Your task to perform on an android device: star an email in the gmail app Image 0: 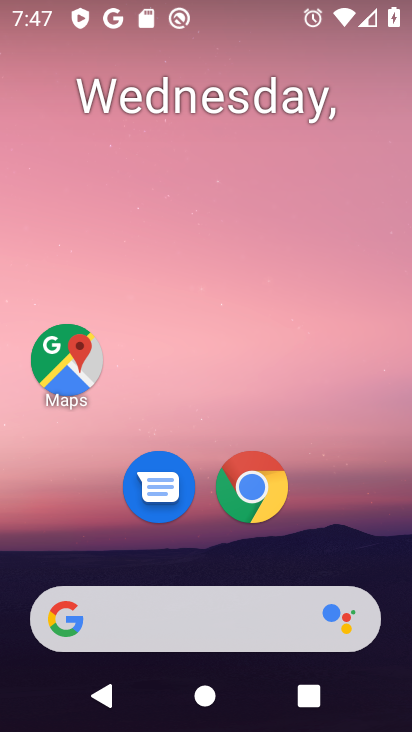
Step 0: drag from (204, 608) to (215, 166)
Your task to perform on an android device: star an email in the gmail app Image 1: 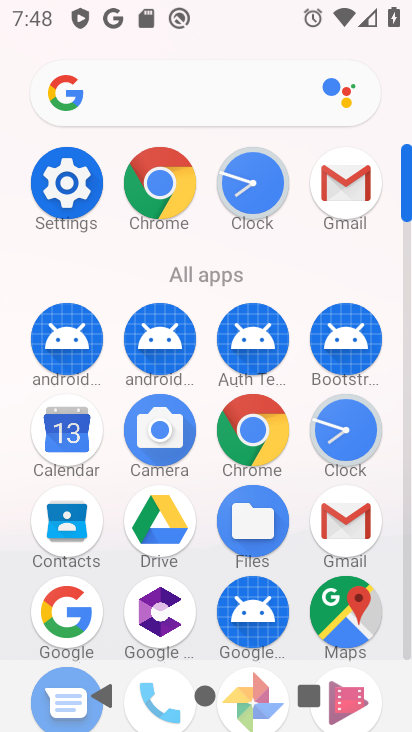
Step 1: drag from (239, 498) to (319, 238)
Your task to perform on an android device: star an email in the gmail app Image 2: 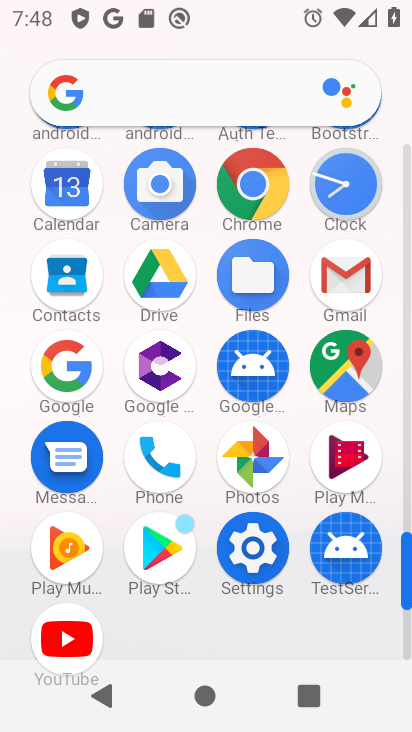
Step 2: click (353, 282)
Your task to perform on an android device: star an email in the gmail app Image 3: 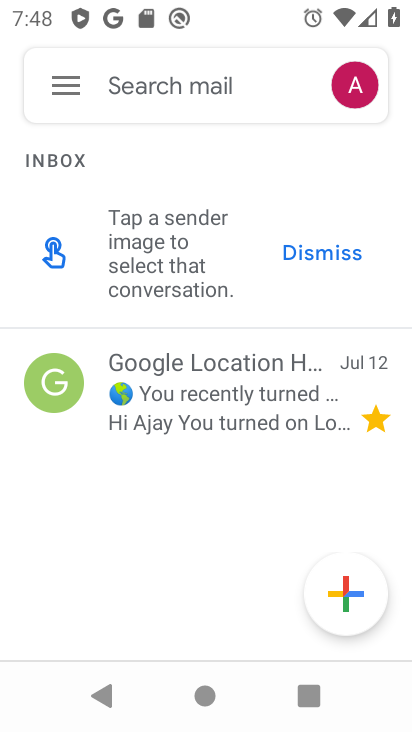
Step 3: click (63, 101)
Your task to perform on an android device: star an email in the gmail app Image 4: 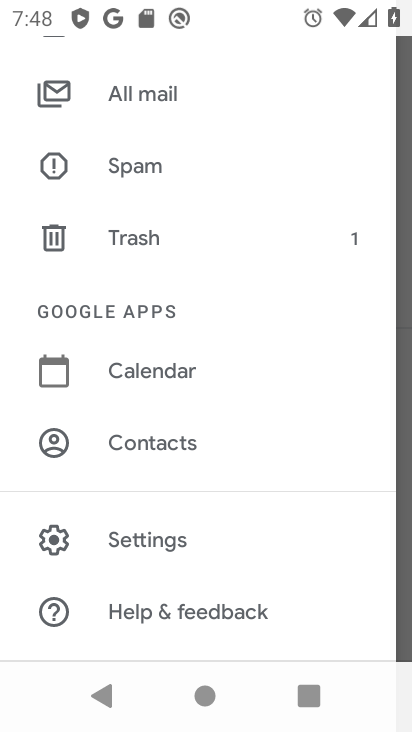
Step 4: click (122, 104)
Your task to perform on an android device: star an email in the gmail app Image 5: 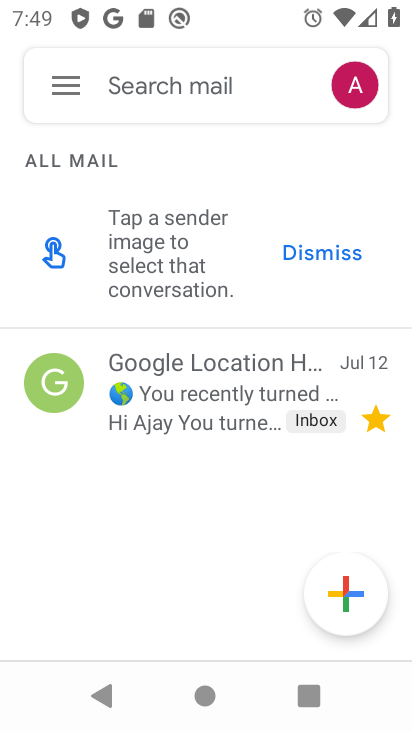
Step 5: task complete